Your task to perform on an android device: Go to Reddit.com Image 0: 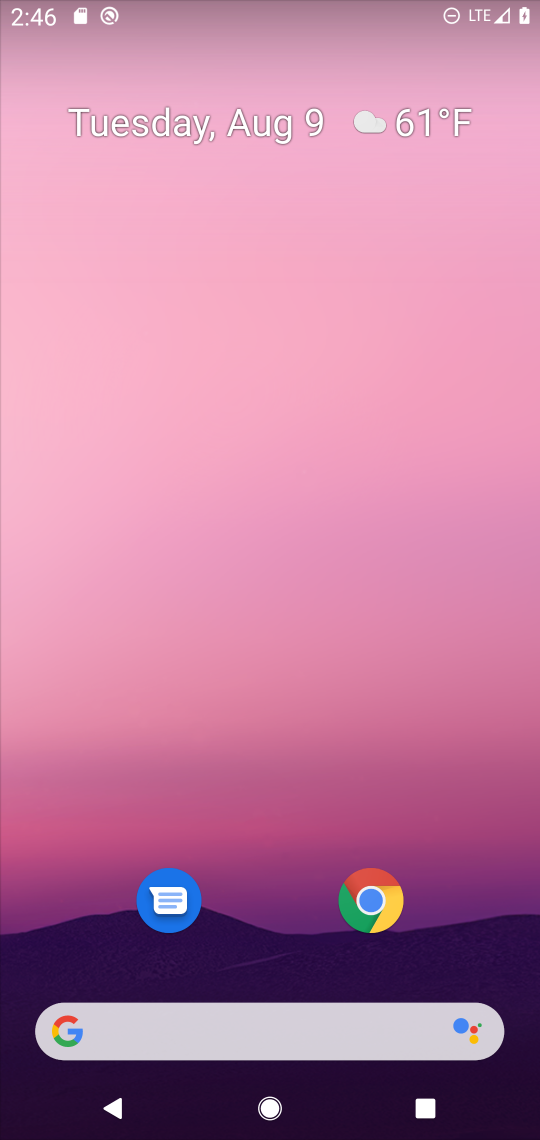
Step 0: press home button
Your task to perform on an android device: Go to Reddit.com Image 1: 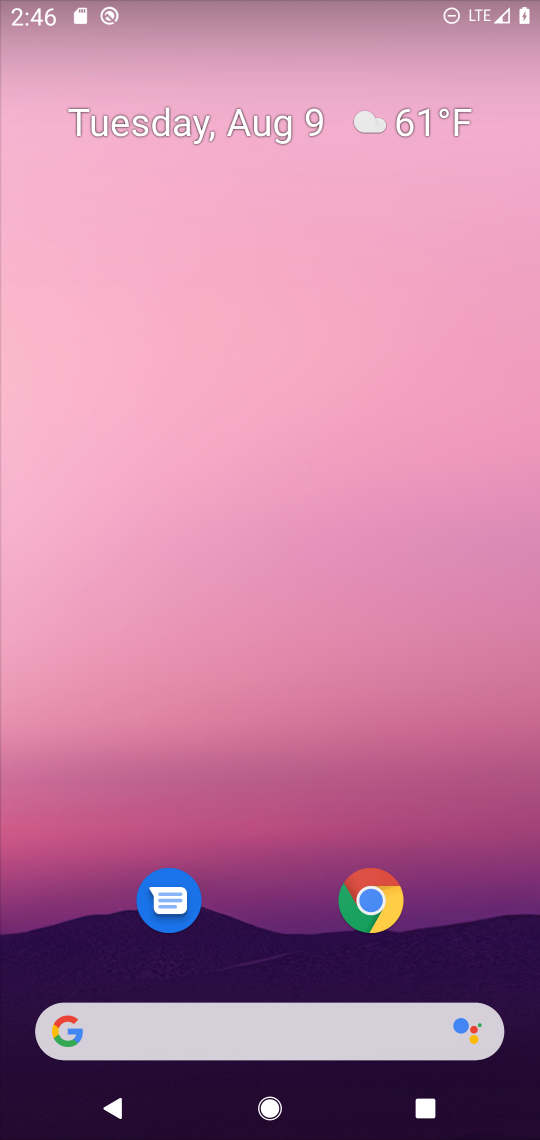
Step 1: drag from (257, 956) to (287, 271)
Your task to perform on an android device: Go to Reddit.com Image 2: 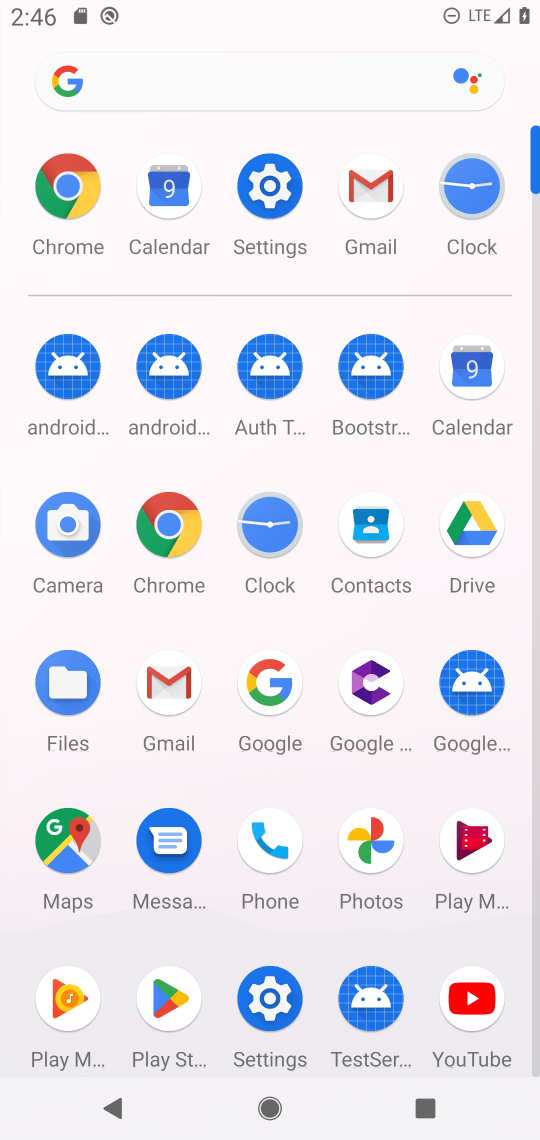
Step 2: click (176, 527)
Your task to perform on an android device: Go to Reddit.com Image 3: 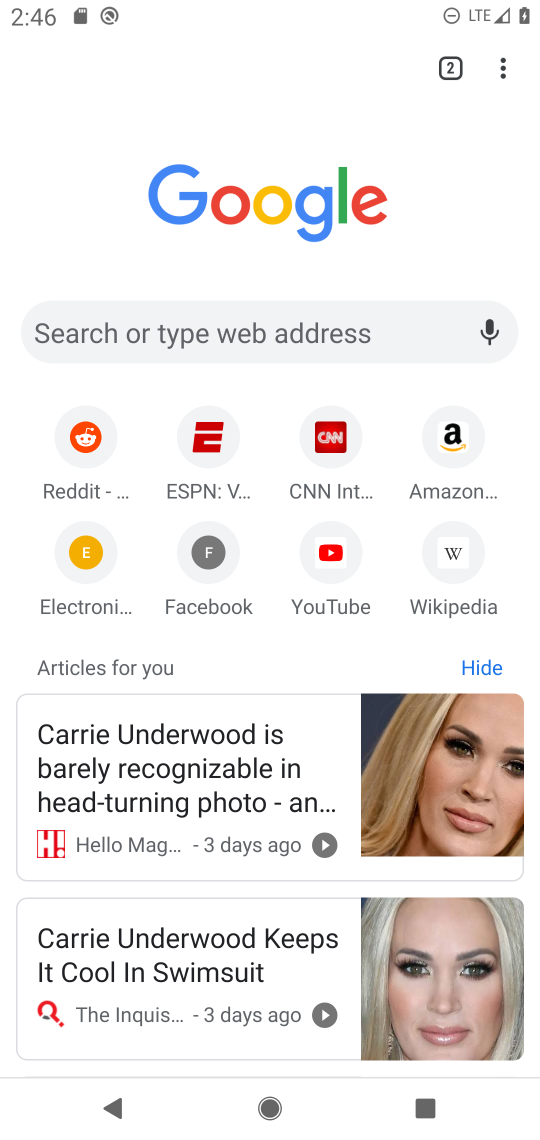
Step 3: click (290, 339)
Your task to perform on an android device: Go to Reddit.com Image 4: 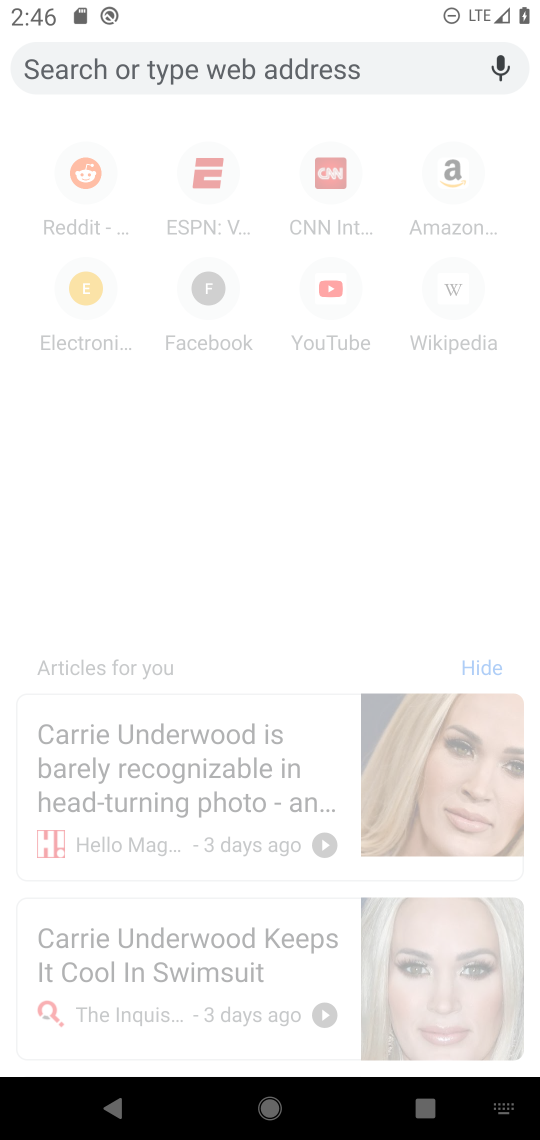
Step 4: type "reddit.com"
Your task to perform on an android device: Go to Reddit.com Image 5: 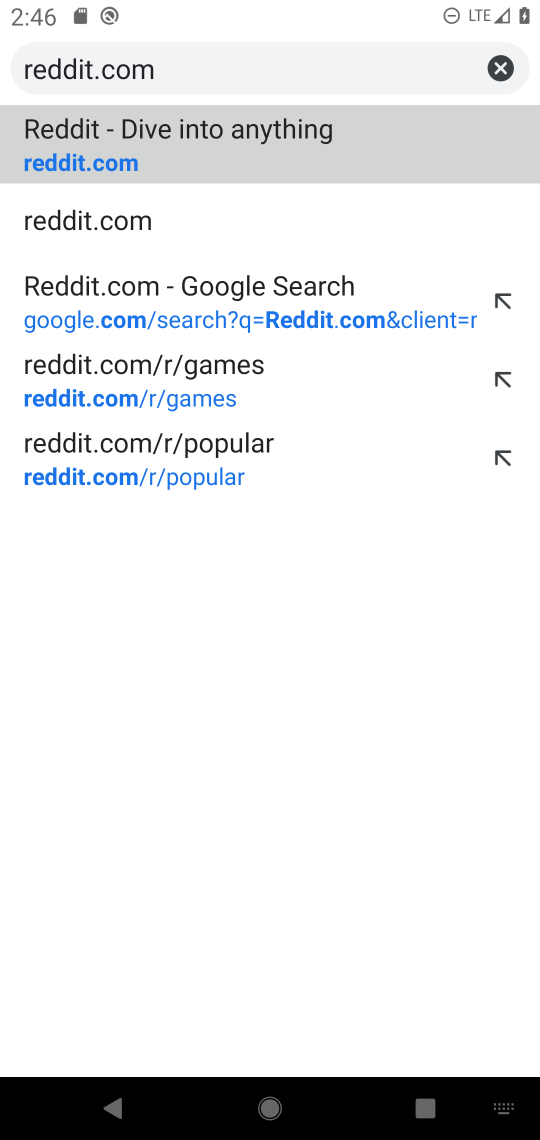
Step 5: click (157, 144)
Your task to perform on an android device: Go to Reddit.com Image 6: 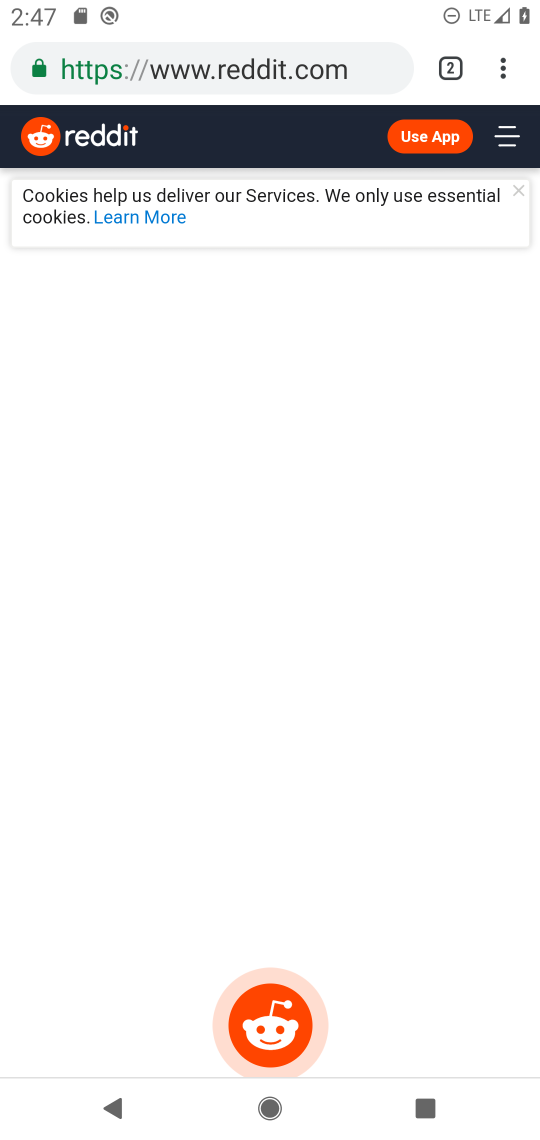
Step 6: task complete